Your task to perform on an android device: open app "Google News" Image 0: 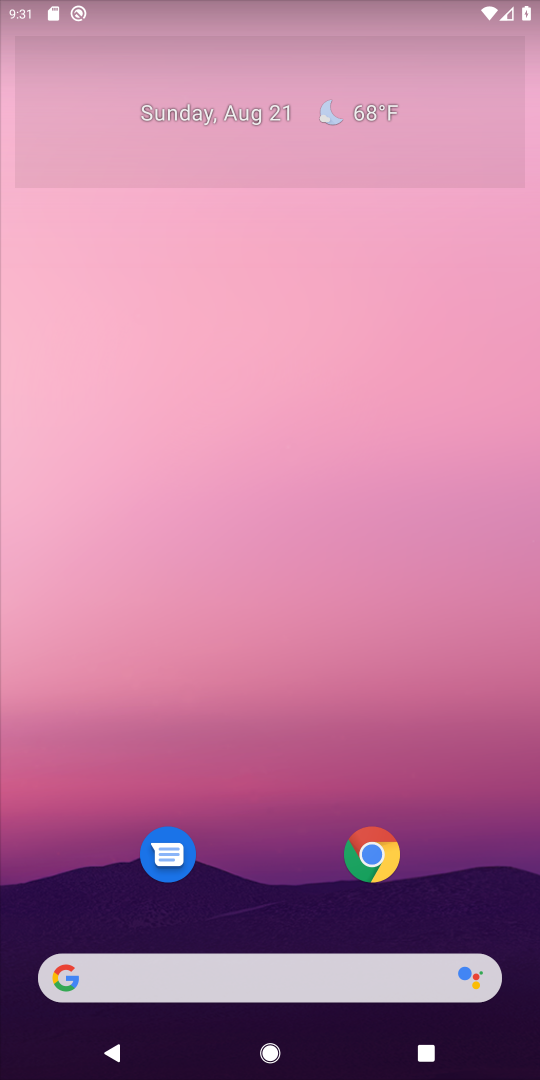
Step 0: drag from (302, 928) to (301, 192)
Your task to perform on an android device: open app "Google News" Image 1: 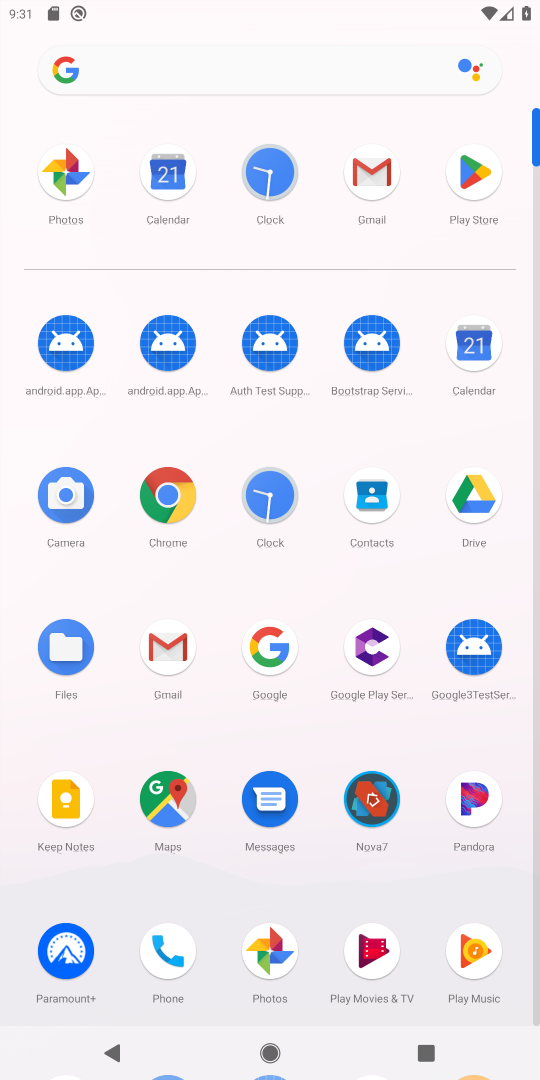
Step 1: click (462, 171)
Your task to perform on an android device: open app "Google News" Image 2: 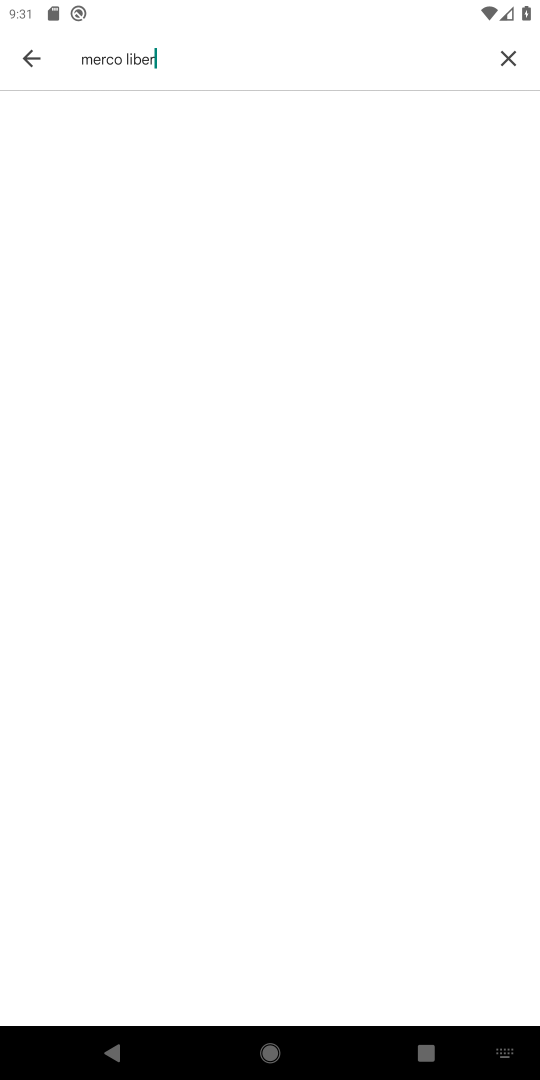
Step 2: click (503, 41)
Your task to perform on an android device: open app "Google News" Image 3: 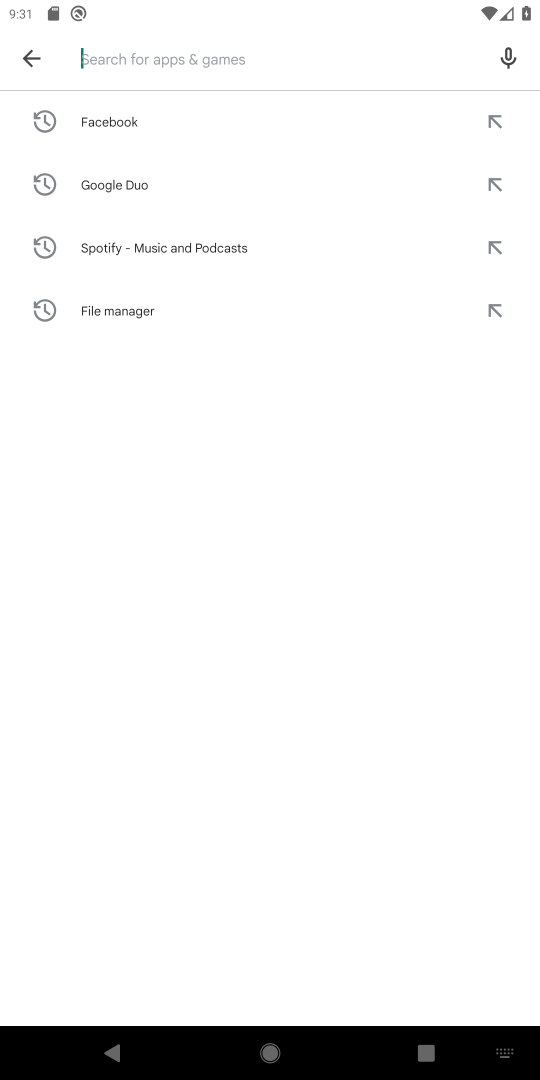
Step 3: type "google news"
Your task to perform on an android device: open app "Google News" Image 4: 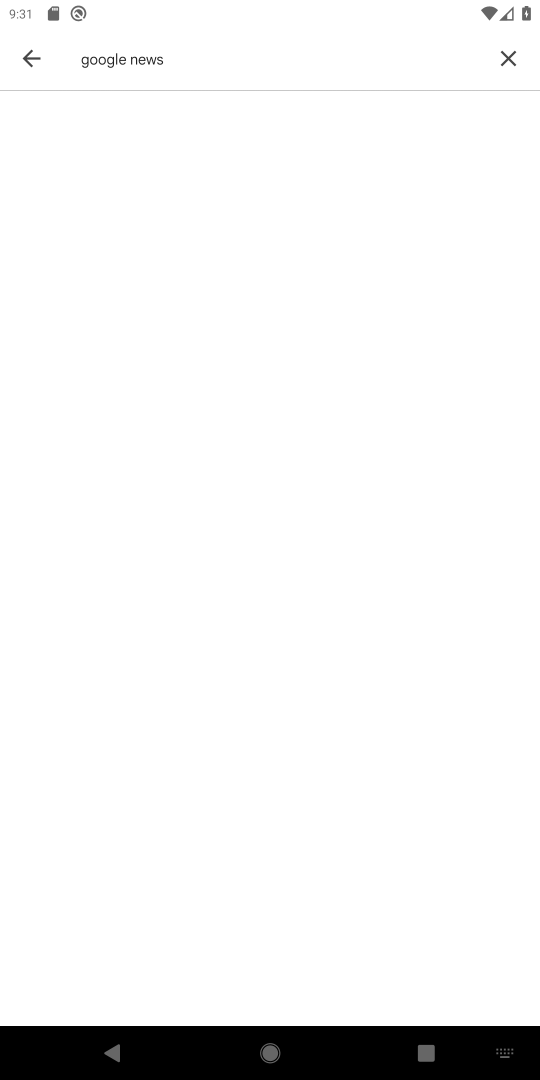
Step 4: task complete